Your task to perform on an android device: Open the calendar app, open the side menu, and click the "Day" option Image 0: 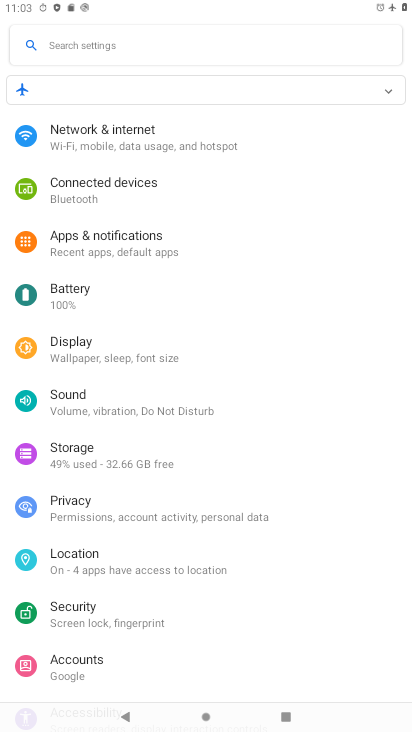
Step 0: press back button
Your task to perform on an android device: Open the calendar app, open the side menu, and click the "Day" option Image 1: 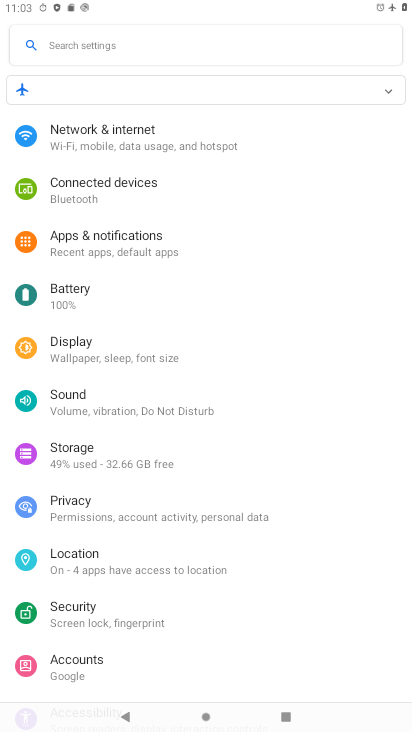
Step 1: press back button
Your task to perform on an android device: Open the calendar app, open the side menu, and click the "Day" option Image 2: 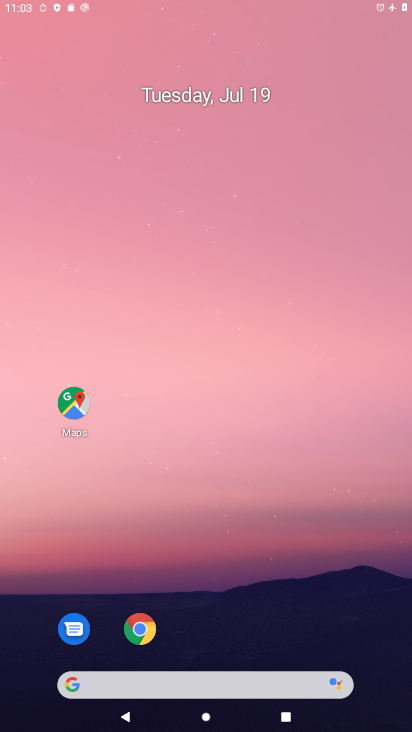
Step 2: press back button
Your task to perform on an android device: Open the calendar app, open the side menu, and click the "Day" option Image 3: 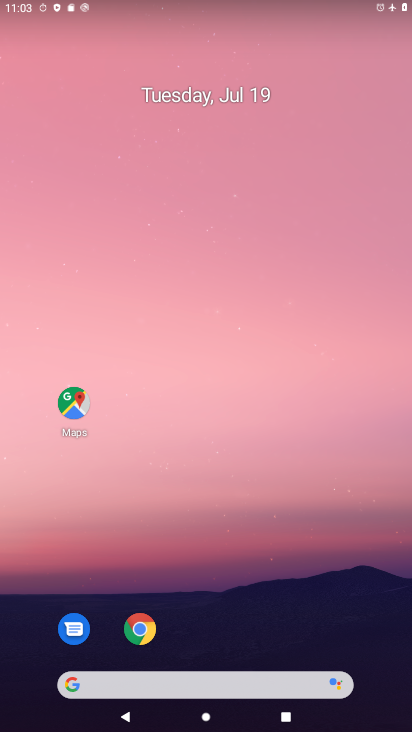
Step 3: drag from (244, 560) to (267, 3)
Your task to perform on an android device: Open the calendar app, open the side menu, and click the "Day" option Image 4: 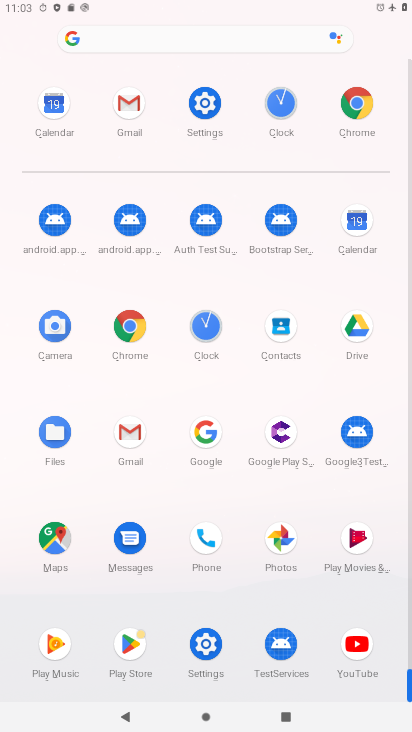
Step 4: click (359, 219)
Your task to perform on an android device: Open the calendar app, open the side menu, and click the "Day" option Image 5: 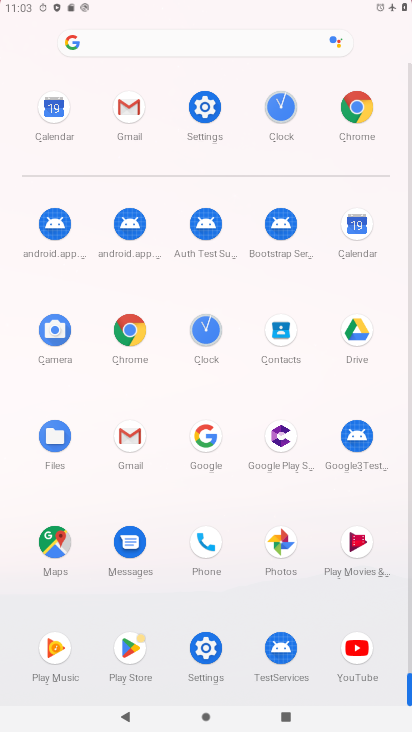
Step 5: click (357, 228)
Your task to perform on an android device: Open the calendar app, open the side menu, and click the "Day" option Image 6: 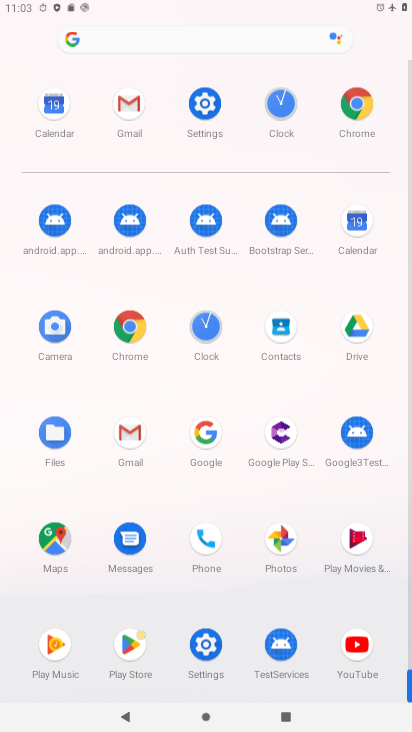
Step 6: click (357, 228)
Your task to perform on an android device: Open the calendar app, open the side menu, and click the "Day" option Image 7: 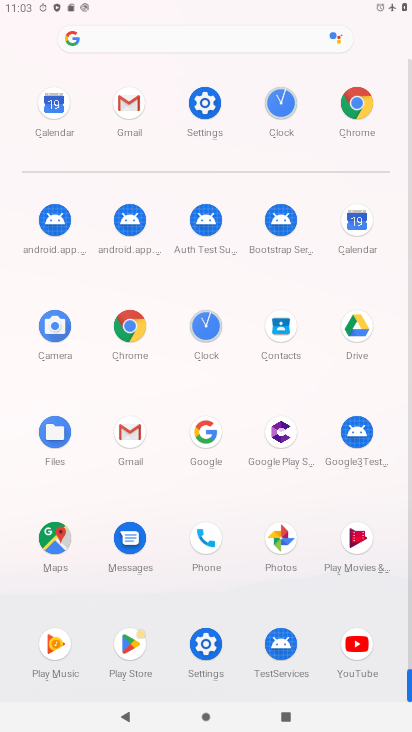
Step 7: click (357, 228)
Your task to perform on an android device: Open the calendar app, open the side menu, and click the "Day" option Image 8: 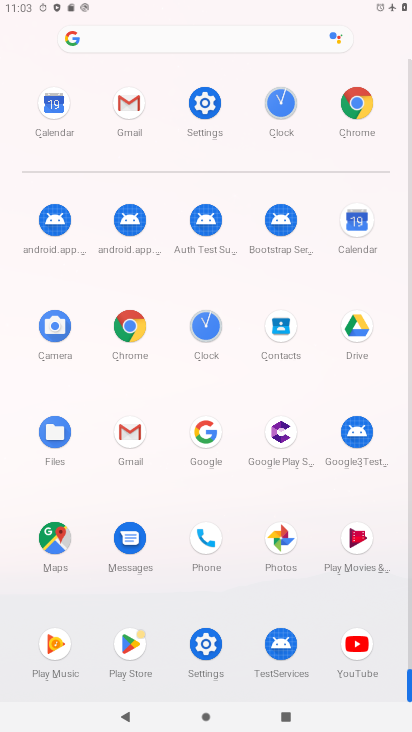
Step 8: click (357, 228)
Your task to perform on an android device: Open the calendar app, open the side menu, and click the "Day" option Image 9: 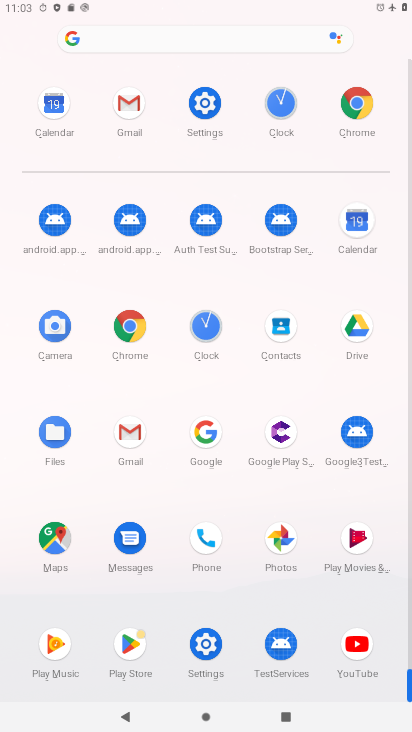
Step 9: click (357, 228)
Your task to perform on an android device: Open the calendar app, open the side menu, and click the "Day" option Image 10: 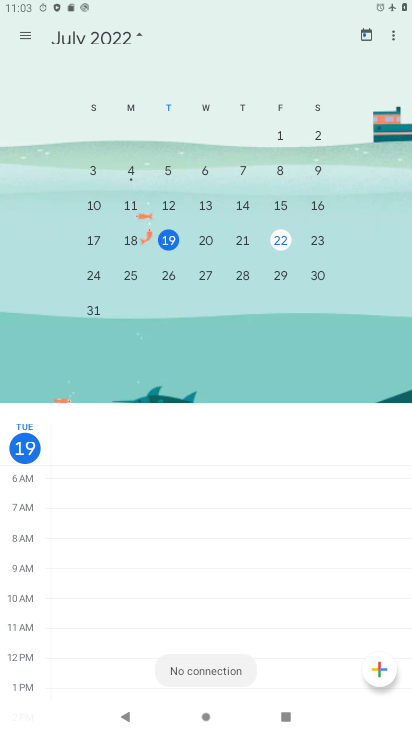
Step 10: click (33, 36)
Your task to perform on an android device: Open the calendar app, open the side menu, and click the "Day" option Image 11: 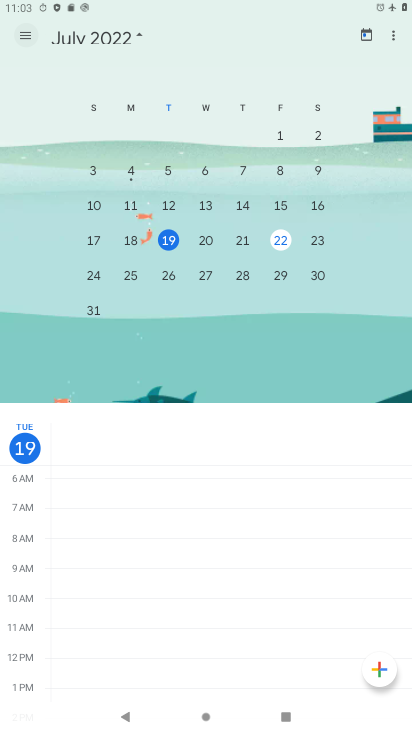
Step 11: click (33, 35)
Your task to perform on an android device: Open the calendar app, open the side menu, and click the "Day" option Image 12: 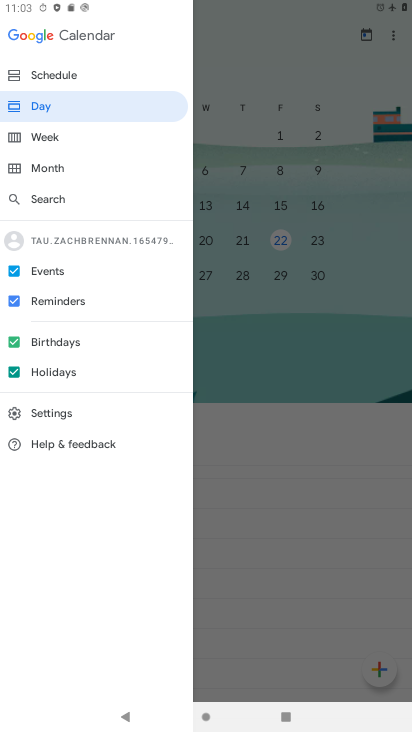
Step 12: click (33, 35)
Your task to perform on an android device: Open the calendar app, open the side menu, and click the "Day" option Image 13: 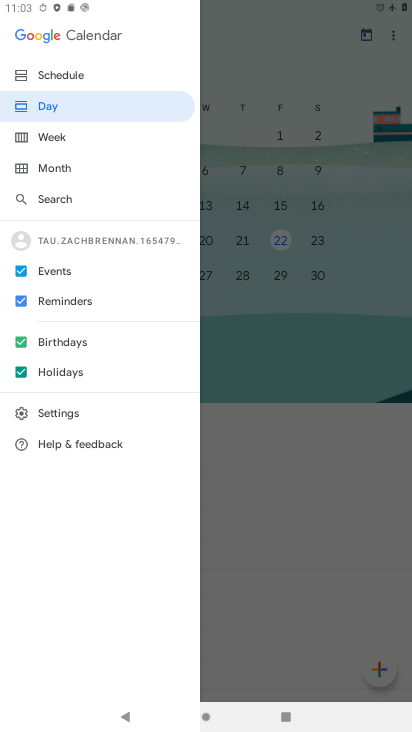
Step 13: click (54, 110)
Your task to perform on an android device: Open the calendar app, open the side menu, and click the "Day" option Image 14: 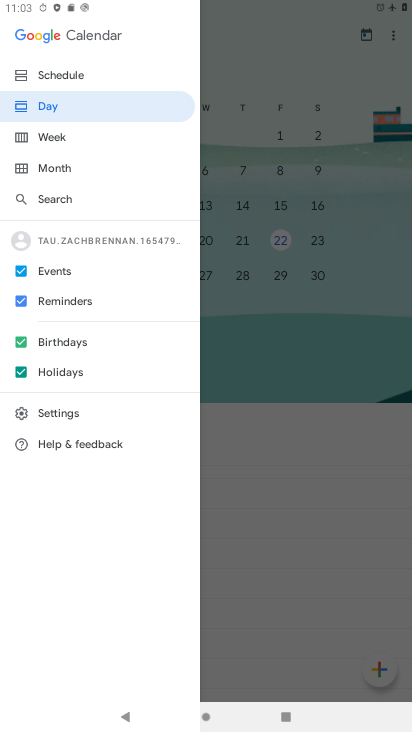
Step 14: click (54, 110)
Your task to perform on an android device: Open the calendar app, open the side menu, and click the "Day" option Image 15: 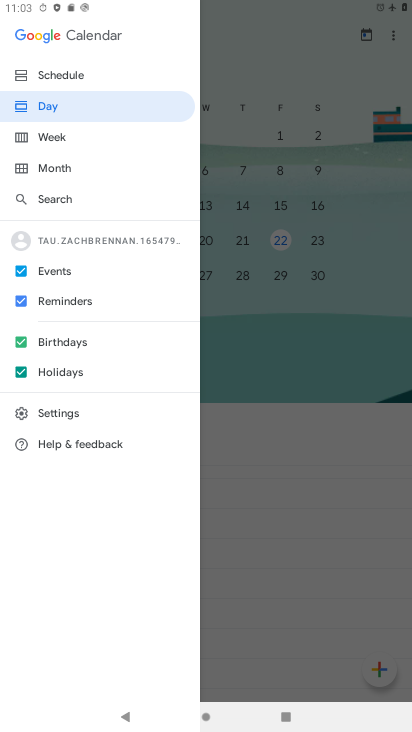
Step 15: click (55, 111)
Your task to perform on an android device: Open the calendar app, open the side menu, and click the "Day" option Image 16: 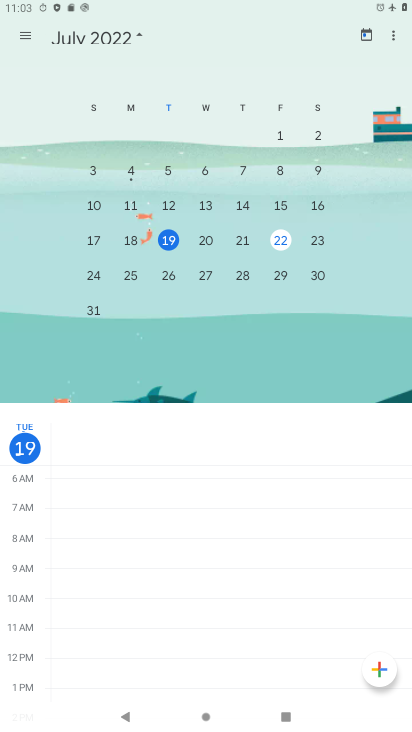
Step 16: click (50, 107)
Your task to perform on an android device: Open the calendar app, open the side menu, and click the "Day" option Image 17: 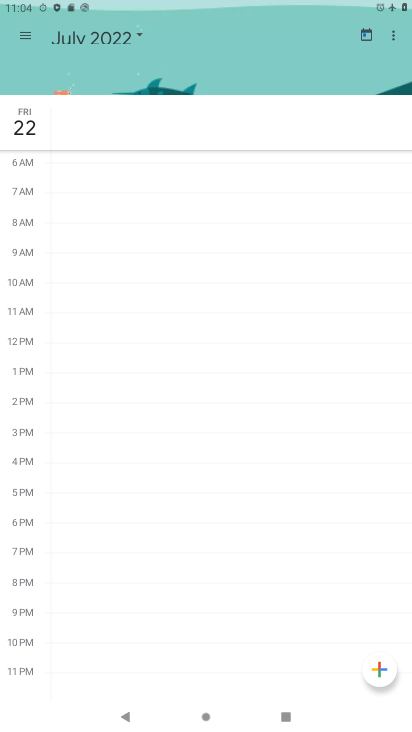
Step 17: task complete